Your task to perform on an android device: set default search engine in the chrome app Image 0: 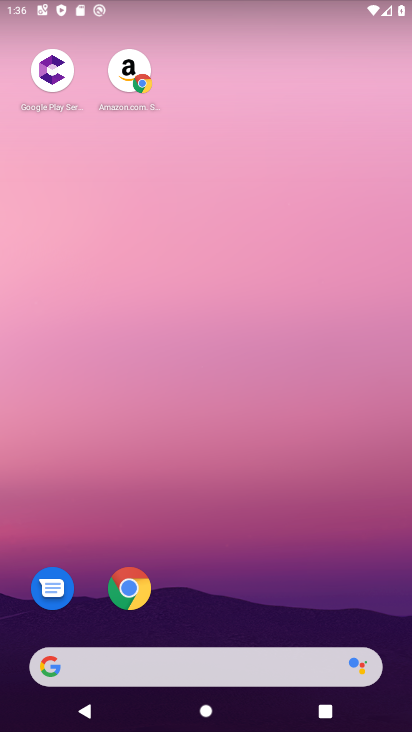
Step 0: click (129, 592)
Your task to perform on an android device: set default search engine in the chrome app Image 1: 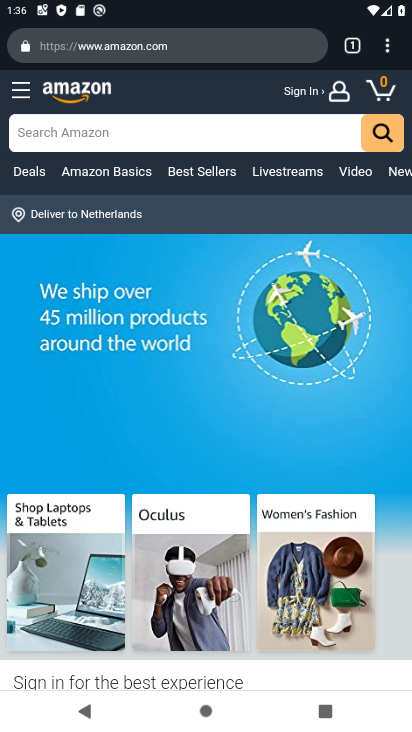
Step 1: click (390, 52)
Your task to perform on an android device: set default search engine in the chrome app Image 2: 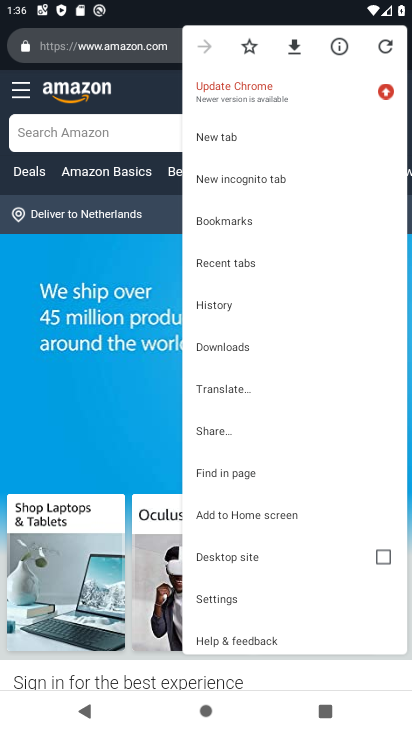
Step 2: click (219, 600)
Your task to perform on an android device: set default search engine in the chrome app Image 3: 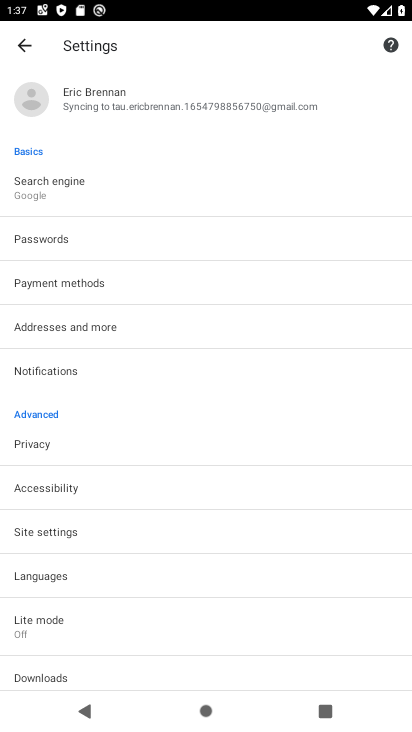
Step 3: click (46, 186)
Your task to perform on an android device: set default search engine in the chrome app Image 4: 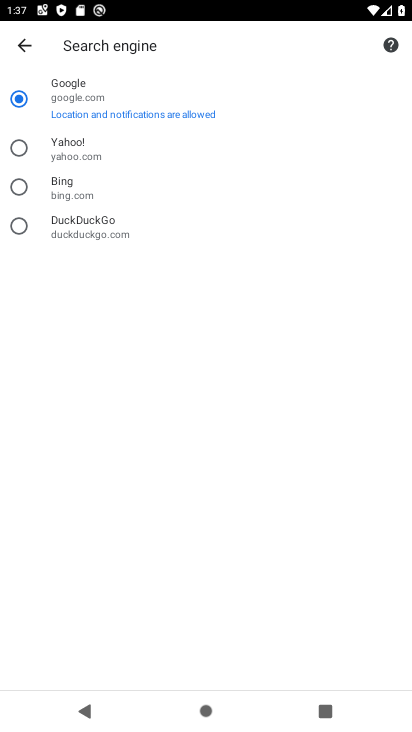
Step 4: click (14, 155)
Your task to perform on an android device: set default search engine in the chrome app Image 5: 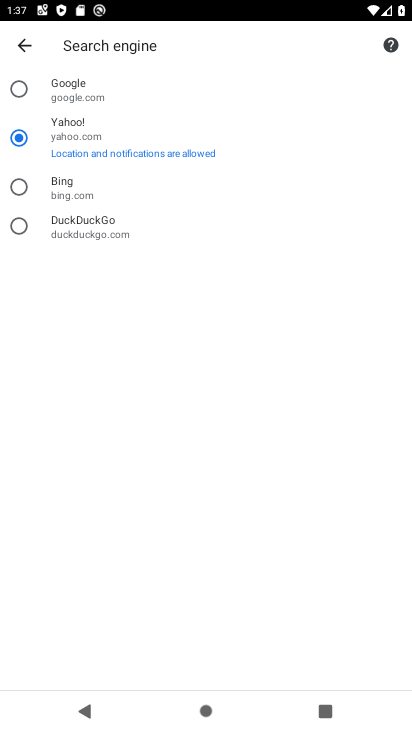
Step 5: task complete